Your task to perform on an android device: uninstall "The Home Depot" Image 0: 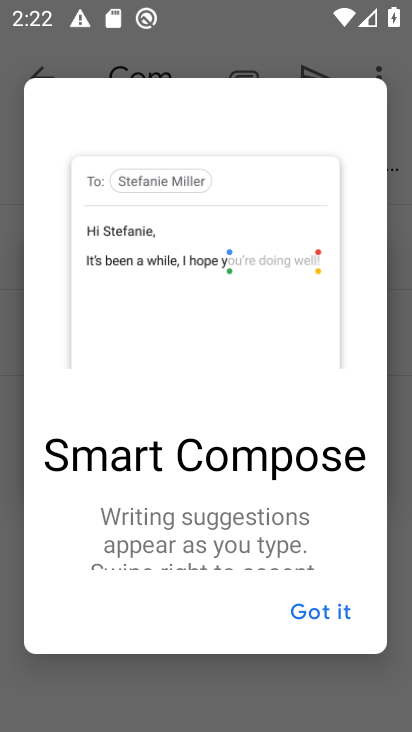
Step 0: press home button
Your task to perform on an android device: uninstall "The Home Depot" Image 1: 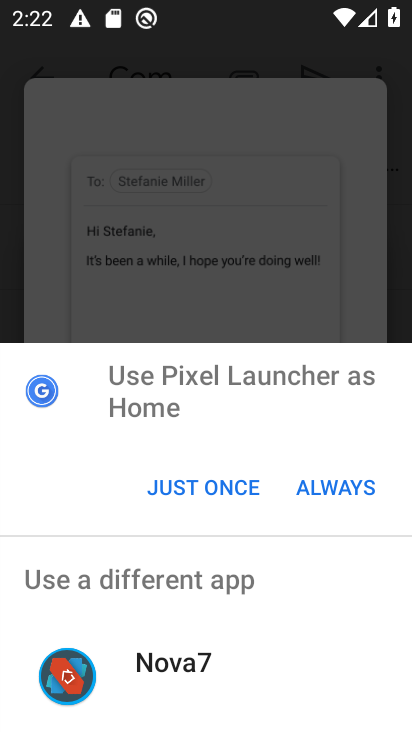
Step 1: click (229, 490)
Your task to perform on an android device: uninstall "The Home Depot" Image 2: 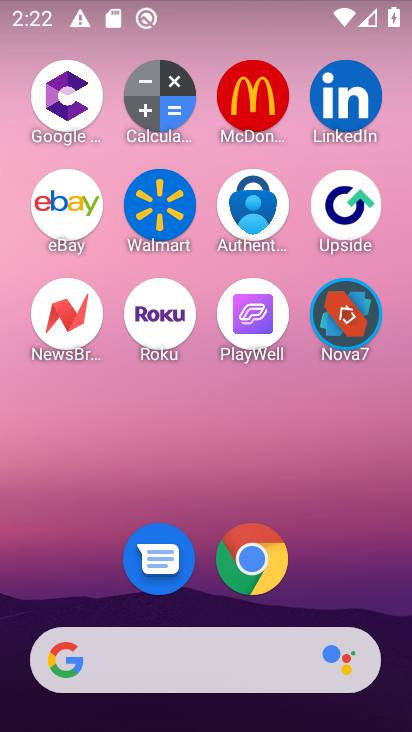
Step 2: drag from (179, 618) to (79, 144)
Your task to perform on an android device: uninstall "The Home Depot" Image 3: 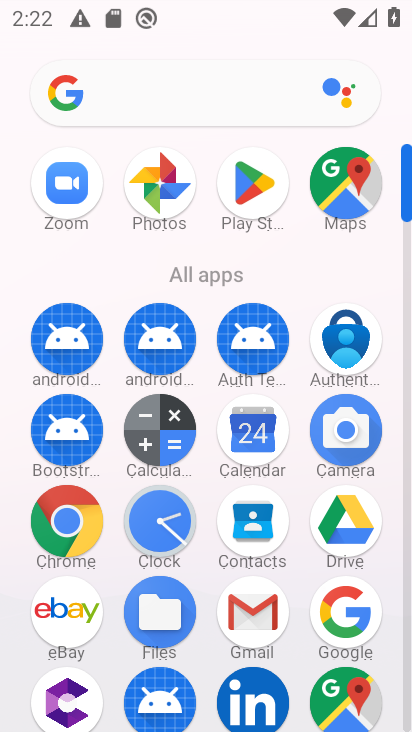
Step 3: click (238, 190)
Your task to perform on an android device: uninstall "The Home Depot" Image 4: 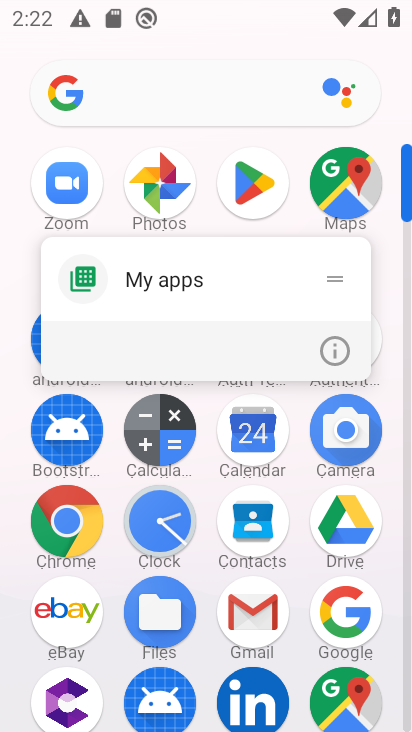
Step 4: click (256, 202)
Your task to perform on an android device: uninstall "The Home Depot" Image 5: 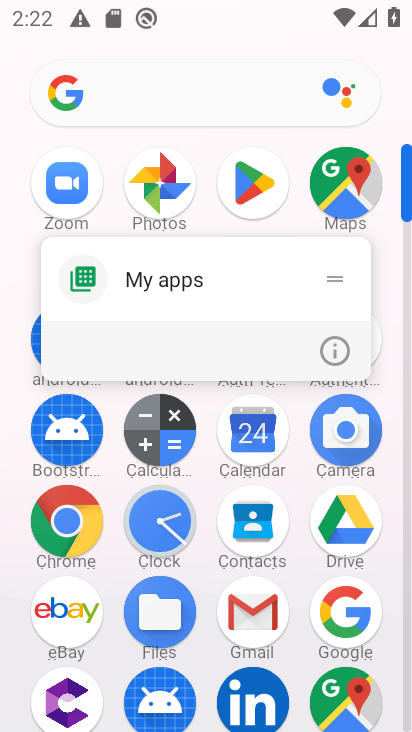
Step 5: click (253, 193)
Your task to perform on an android device: uninstall "The Home Depot" Image 6: 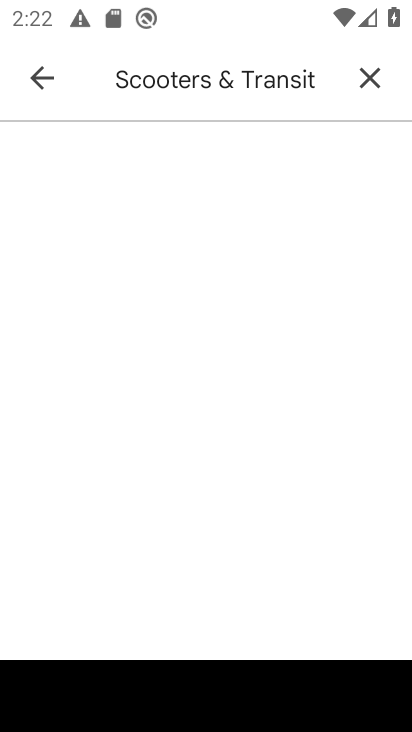
Step 6: click (366, 78)
Your task to perform on an android device: uninstall "The Home Depot" Image 7: 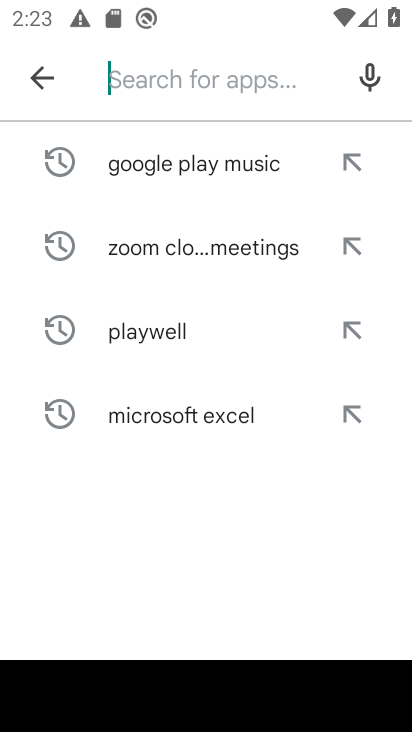
Step 7: type "The Home Depot"
Your task to perform on an android device: uninstall "The Home Depot" Image 8: 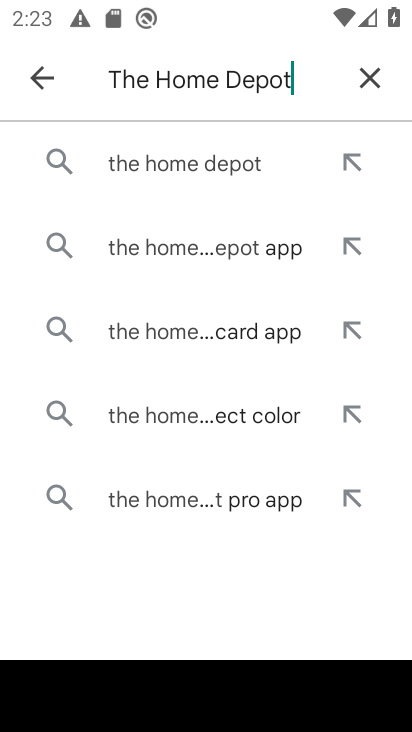
Step 8: click (146, 169)
Your task to perform on an android device: uninstall "The Home Depot" Image 9: 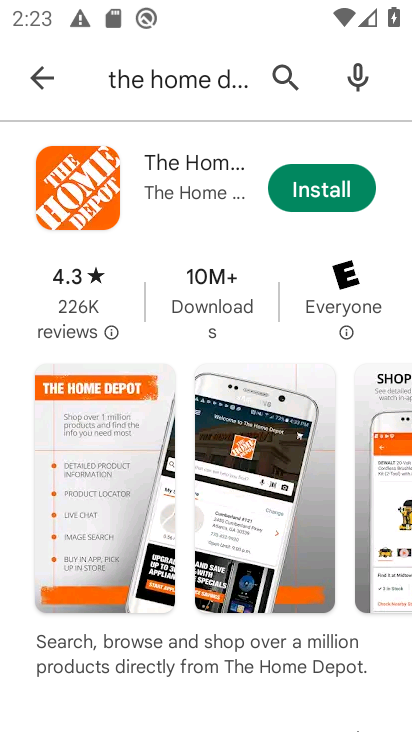
Step 9: task complete